Your task to perform on an android device: Show me the alarms in the clock app Image 0: 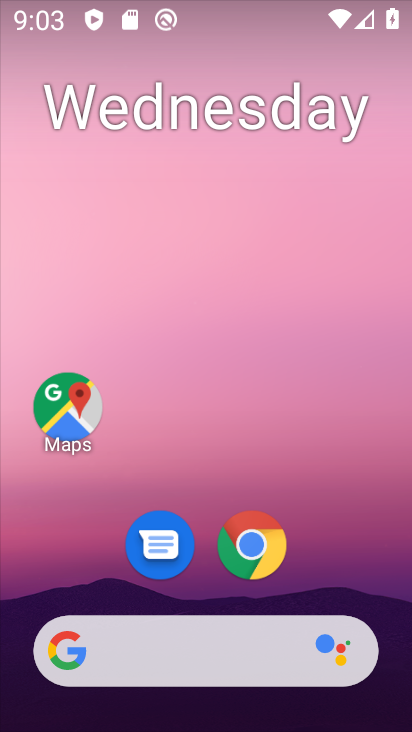
Step 0: drag from (394, 608) to (292, 99)
Your task to perform on an android device: Show me the alarms in the clock app Image 1: 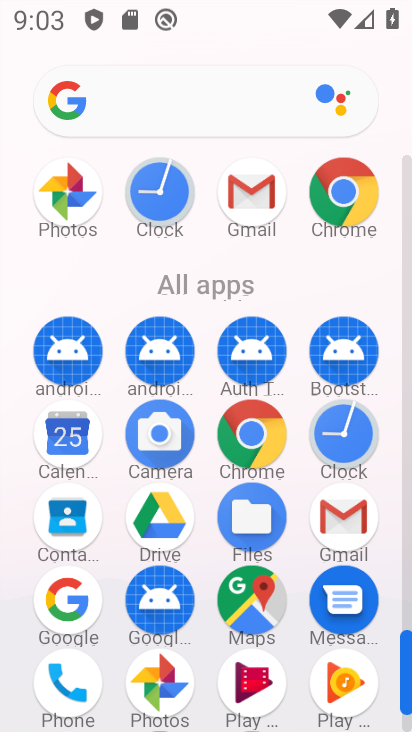
Step 1: click (163, 202)
Your task to perform on an android device: Show me the alarms in the clock app Image 2: 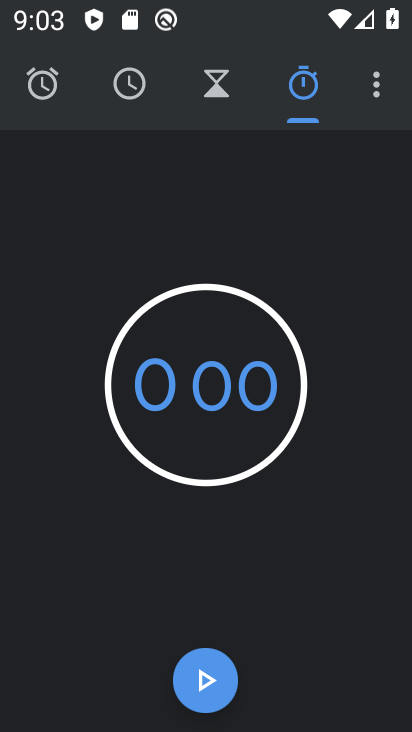
Step 2: click (48, 101)
Your task to perform on an android device: Show me the alarms in the clock app Image 3: 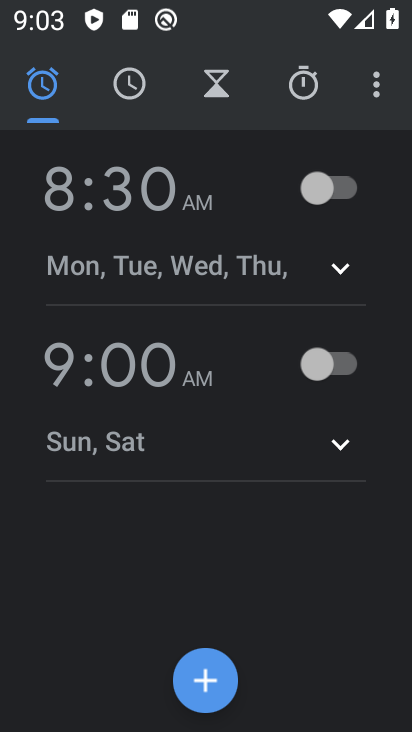
Step 3: task complete